Your task to perform on an android device: see tabs open on other devices in the chrome app Image 0: 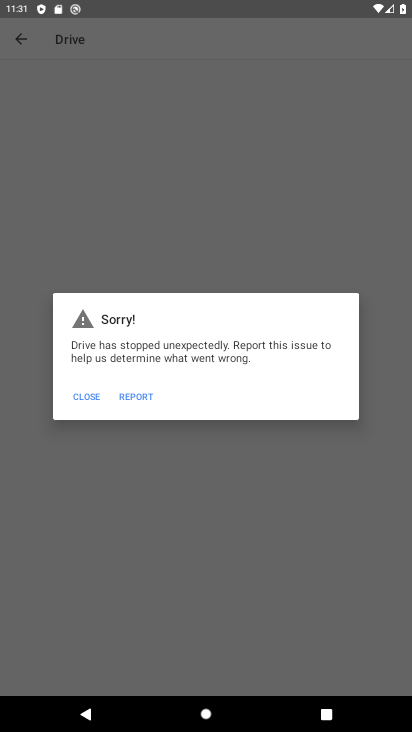
Step 0: press home button
Your task to perform on an android device: see tabs open on other devices in the chrome app Image 1: 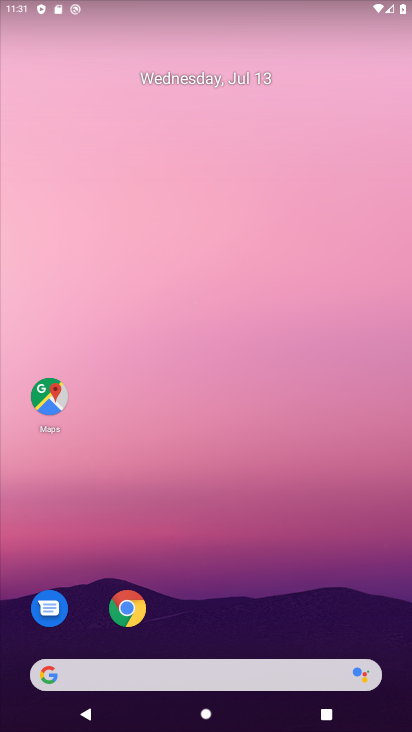
Step 1: click (131, 604)
Your task to perform on an android device: see tabs open on other devices in the chrome app Image 2: 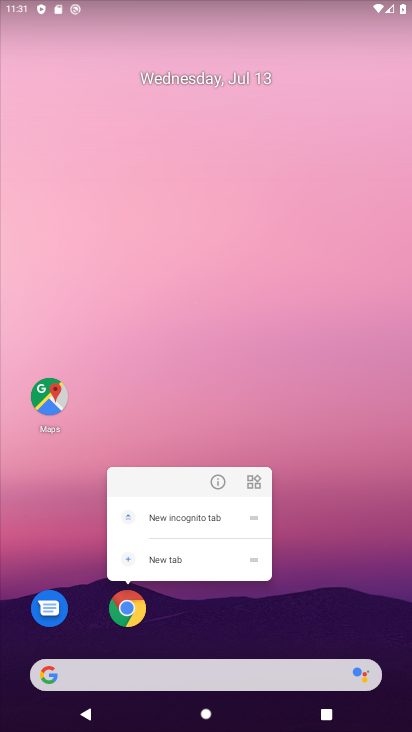
Step 2: click (131, 604)
Your task to perform on an android device: see tabs open on other devices in the chrome app Image 3: 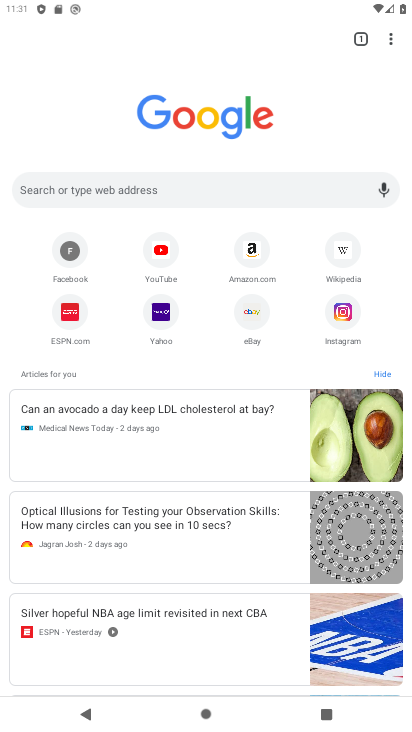
Step 3: click (370, 39)
Your task to perform on an android device: see tabs open on other devices in the chrome app Image 4: 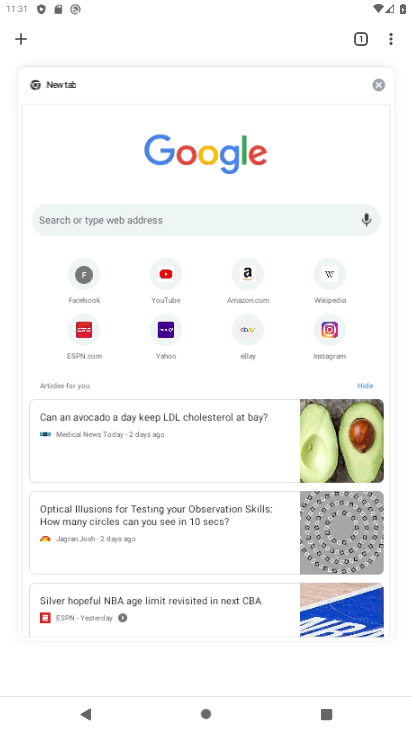
Step 4: click (318, 127)
Your task to perform on an android device: see tabs open on other devices in the chrome app Image 5: 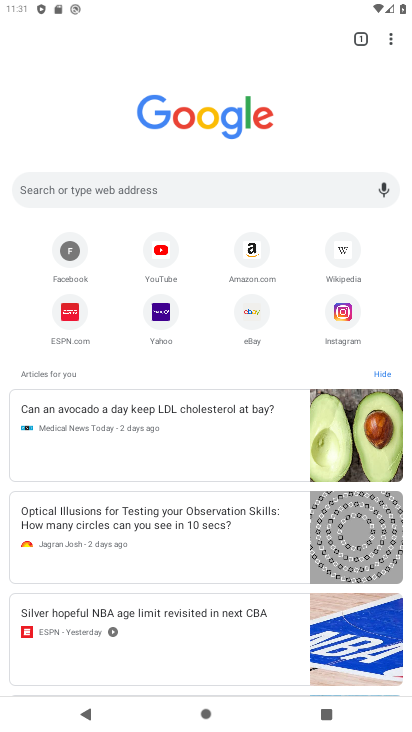
Step 5: task complete